Your task to perform on an android device: Add panasonic triple a to the cart on target.com Image 0: 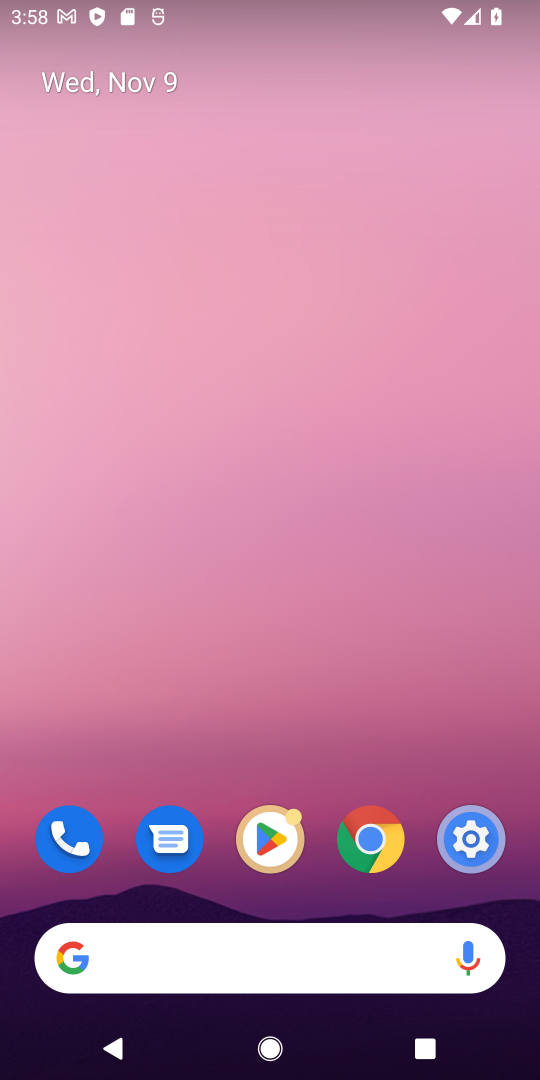
Step 0: task complete